Your task to perform on an android device: change keyboard looks Image 0: 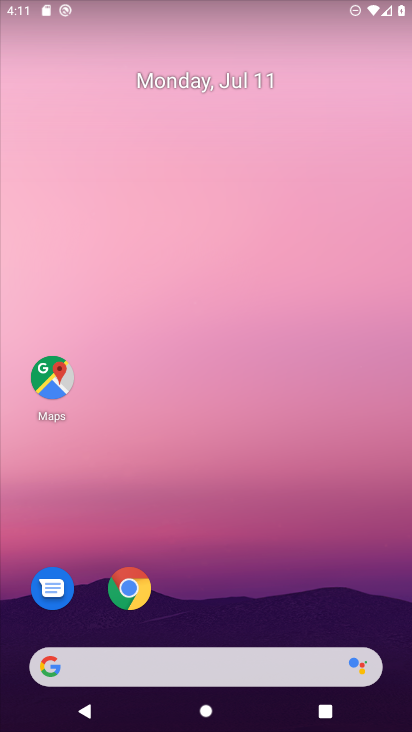
Step 0: press home button
Your task to perform on an android device: change keyboard looks Image 1: 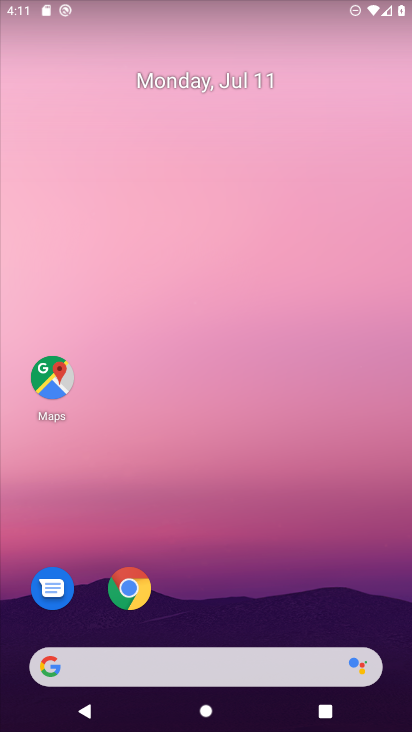
Step 1: drag from (242, 555) to (338, 13)
Your task to perform on an android device: change keyboard looks Image 2: 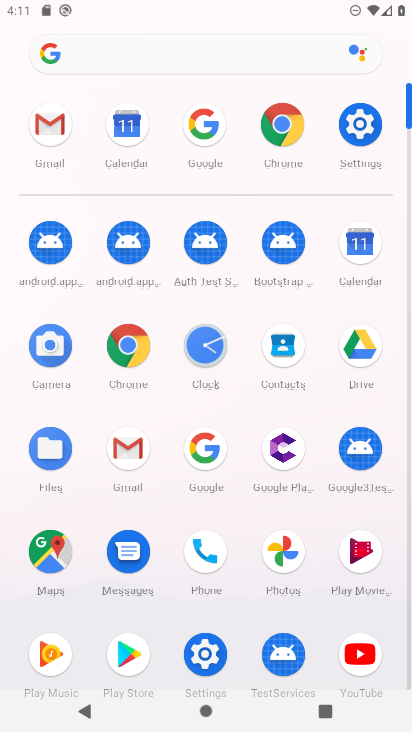
Step 2: click (355, 119)
Your task to perform on an android device: change keyboard looks Image 3: 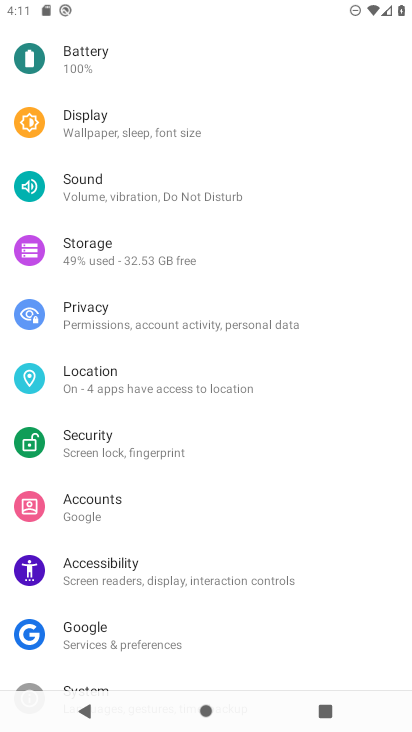
Step 3: drag from (145, 672) to (146, 263)
Your task to perform on an android device: change keyboard looks Image 4: 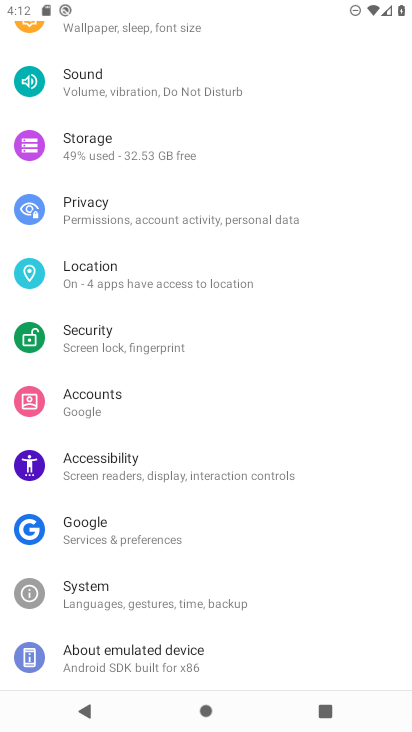
Step 4: click (174, 598)
Your task to perform on an android device: change keyboard looks Image 5: 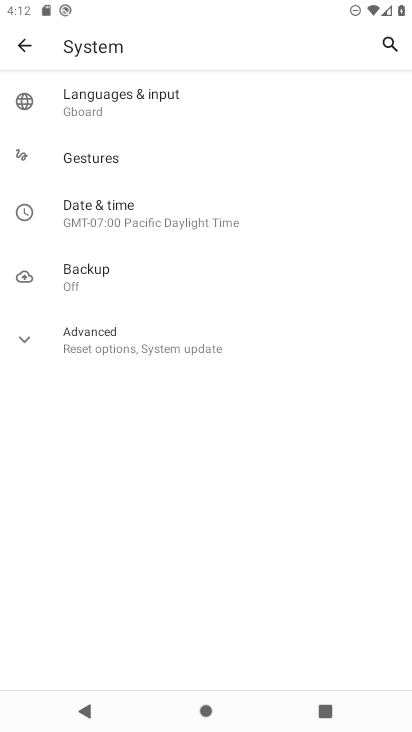
Step 5: click (102, 100)
Your task to perform on an android device: change keyboard looks Image 6: 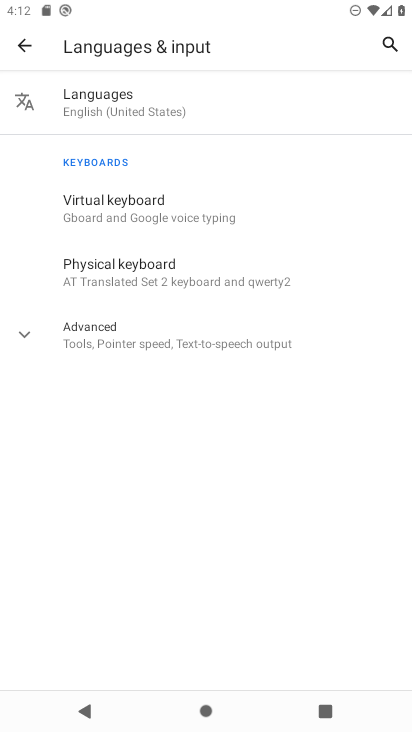
Step 6: click (119, 206)
Your task to perform on an android device: change keyboard looks Image 7: 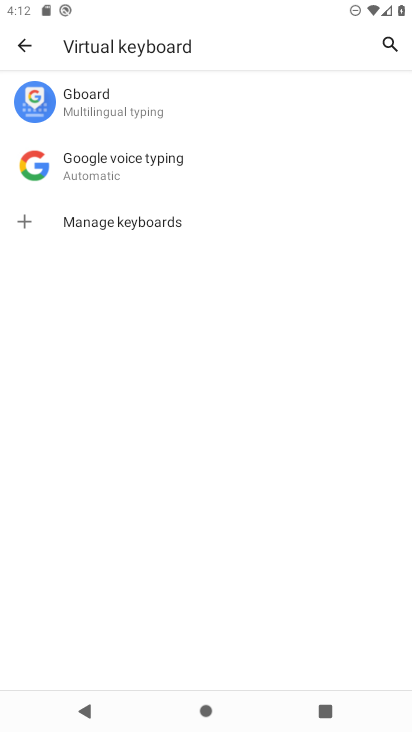
Step 7: click (105, 101)
Your task to perform on an android device: change keyboard looks Image 8: 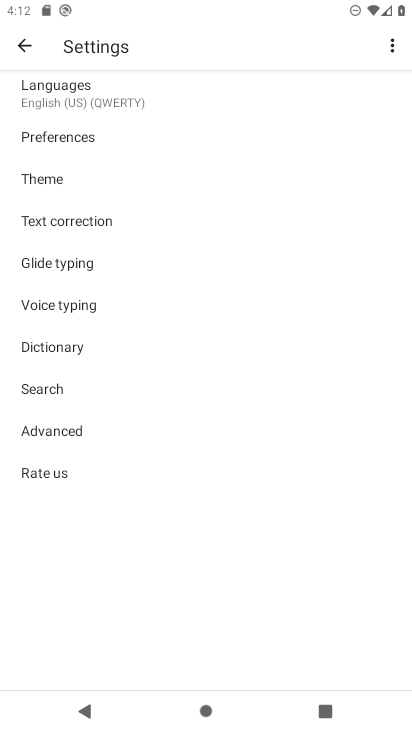
Step 8: click (60, 177)
Your task to perform on an android device: change keyboard looks Image 9: 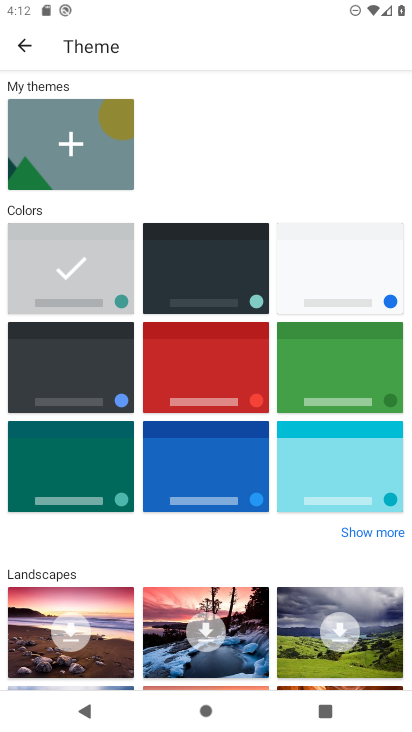
Step 9: click (260, 403)
Your task to perform on an android device: change keyboard looks Image 10: 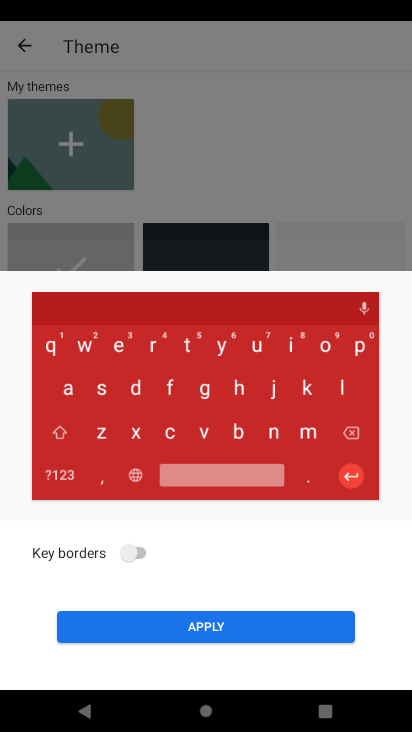
Step 10: click (274, 636)
Your task to perform on an android device: change keyboard looks Image 11: 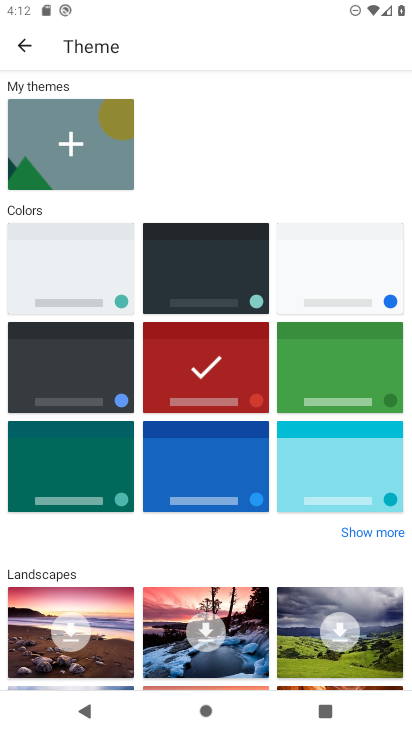
Step 11: task complete